Your task to perform on an android device: Open Yahoo.com Image 0: 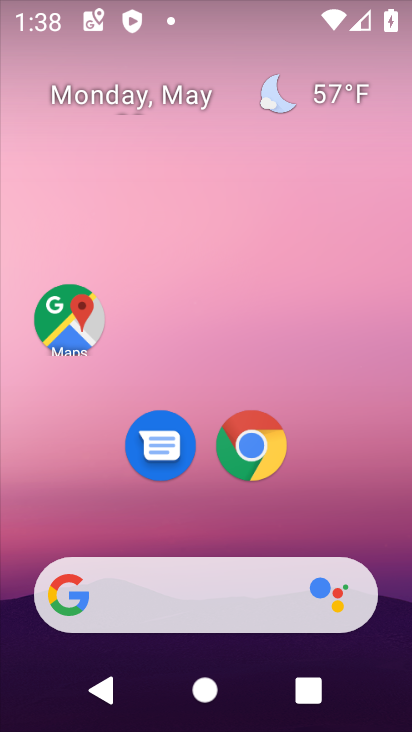
Step 0: click (257, 451)
Your task to perform on an android device: Open Yahoo.com Image 1: 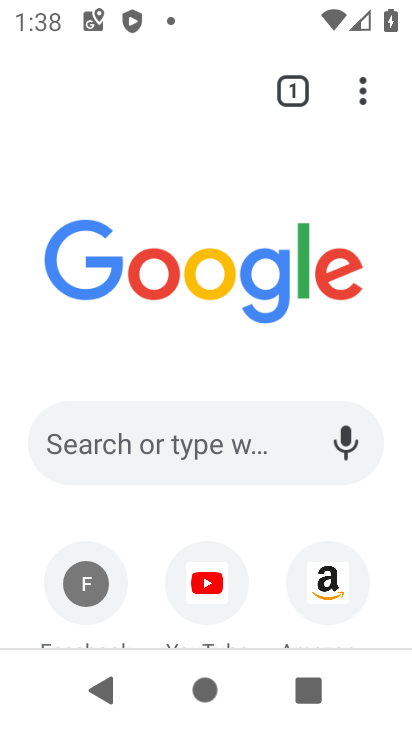
Step 1: drag from (240, 504) to (263, 78)
Your task to perform on an android device: Open Yahoo.com Image 2: 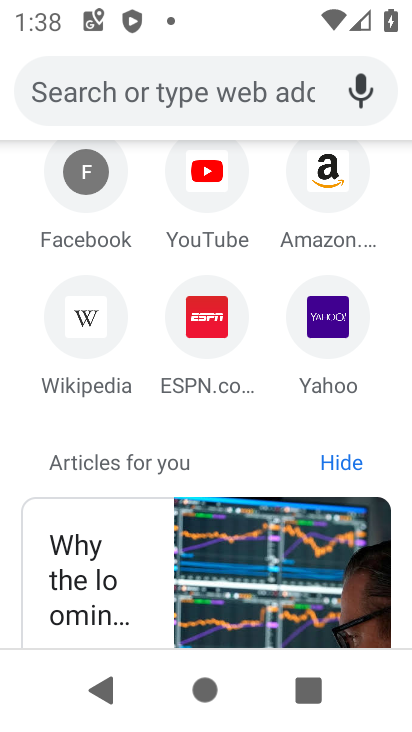
Step 2: click (316, 326)
Your task to perform on an android device: Open Yahoo.com Image 3: 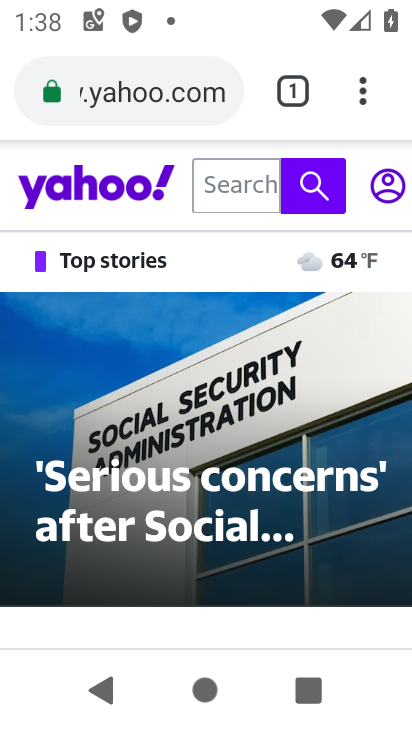
Step 3: task complete